Your task to perform on an android device: Go to notification settings Image 0: 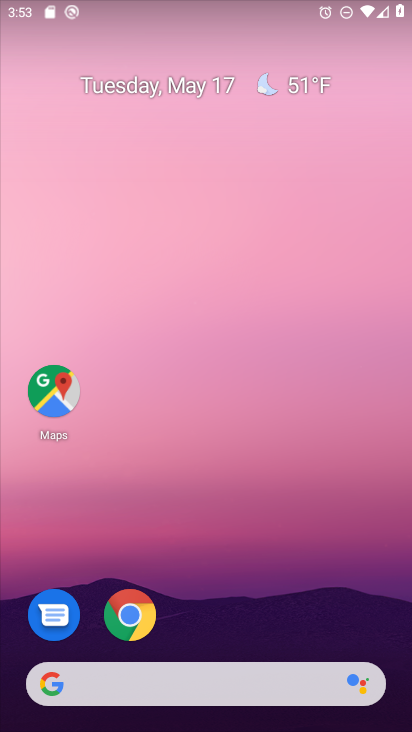
Step 0: press home button
Your task to perform on an android device: Go to notification settings Image 1: 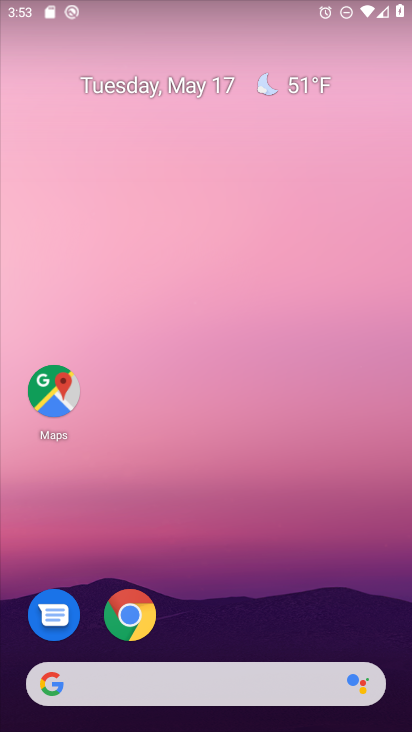
Step 1: drag from (234, 647) to (242, 5)
Your task to perform on an android device: Go to notification settings Image 2: 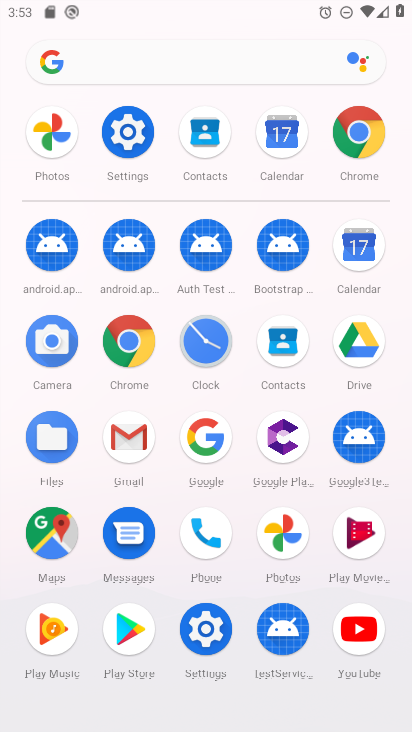
Step 2: click (129, 128)
Your task to perform on an android device: Go to notification settings Image 3: 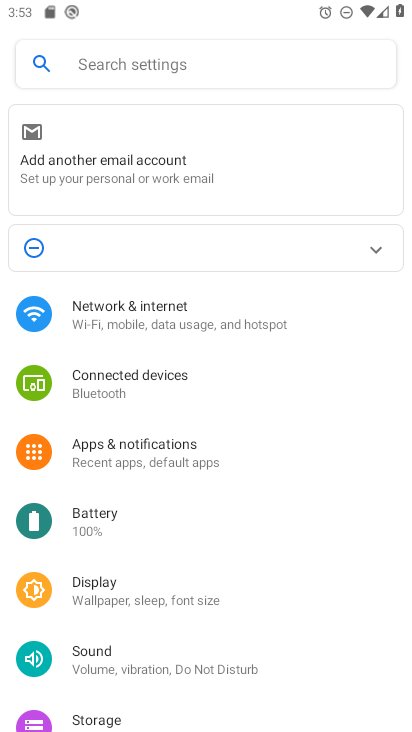
Step 3: click (218, 444)
Your task to perform on an android device: Go to notification settings Image 4: 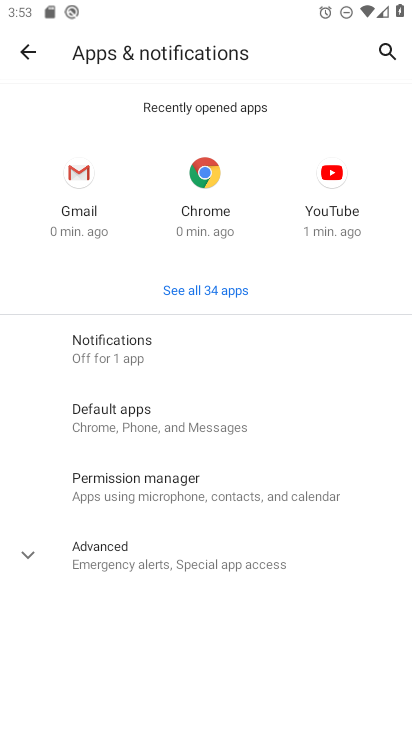
Step 4: click (155, 344)
Your task to perform on an android device: Go to notification settings Image 5: 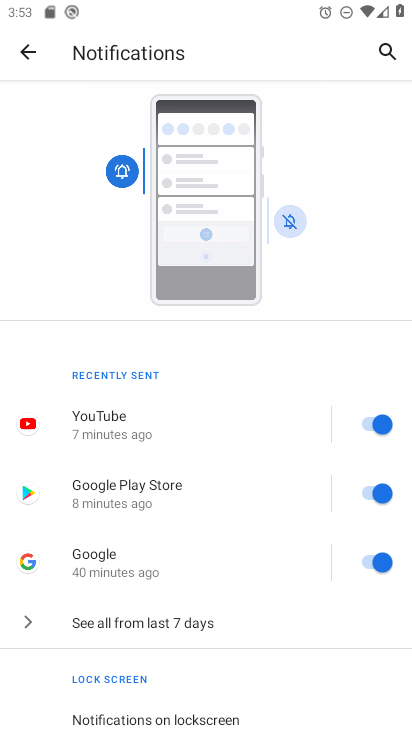
Step 5: drag from (247, 664) to (261, 192)
Your task to perform on an android device: Go to notification settings Image 6: 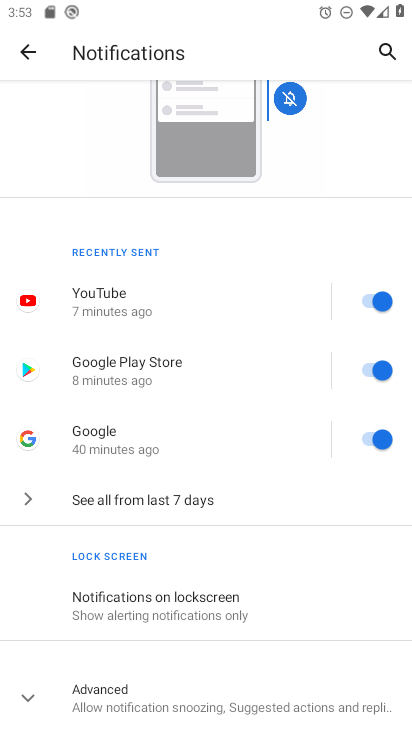
Step 6: click (22, 692)
Your task to perform on an android device: Go to notification settings Image 7: 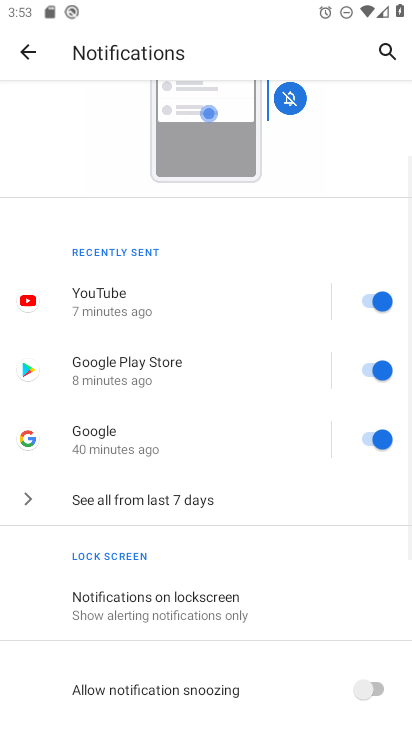
Step 7: task complete